Your task to perform on an android device: Play the last video I watched on Youtube Image 0: 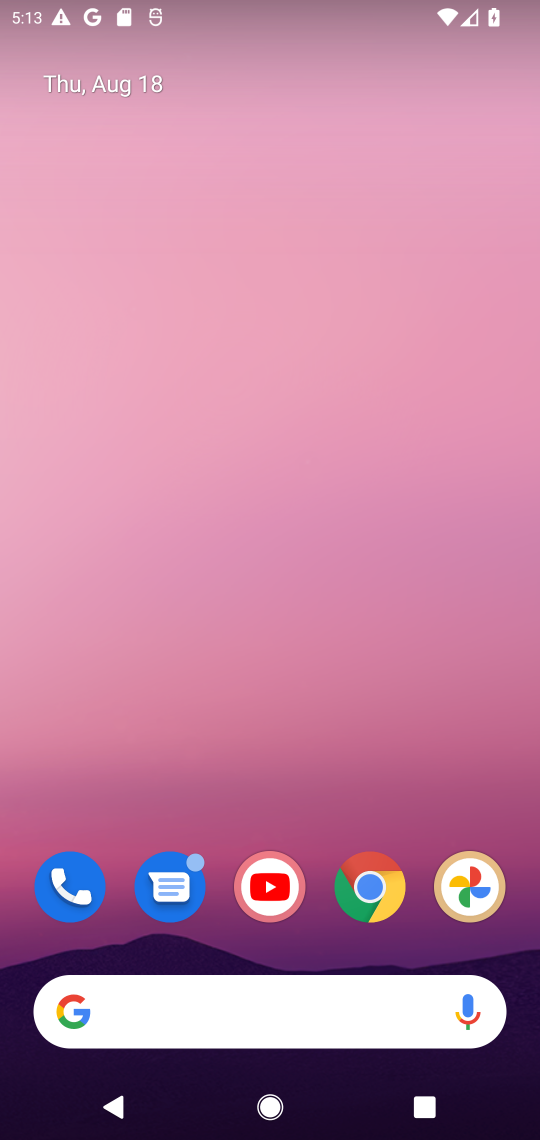
Step 0: click (268, 896)
Your task to perform on an android device: Play the last video I watched on Youtube Image 1: 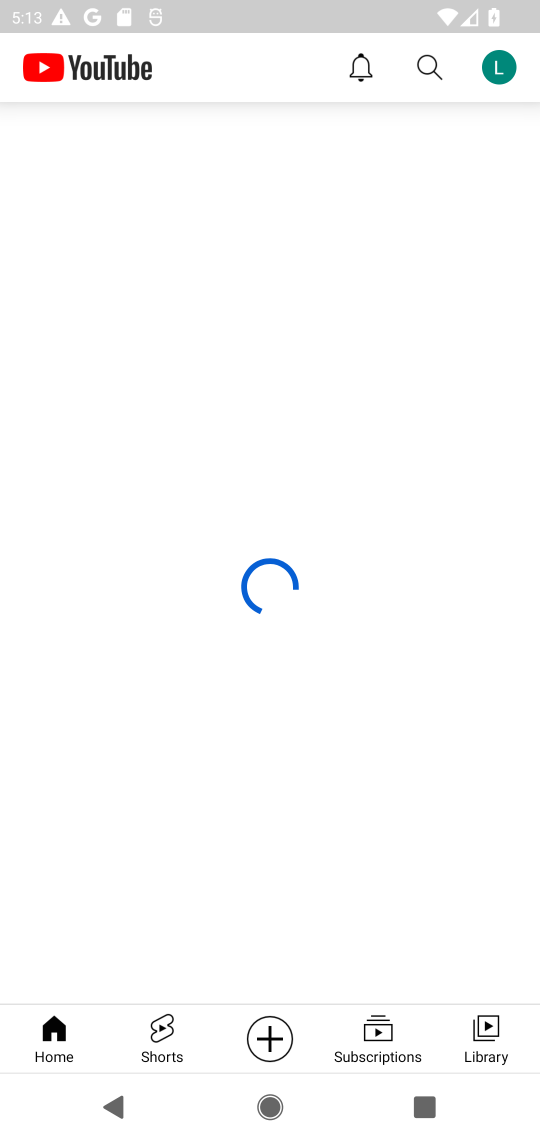
Step 1: task complete